Your task to perform on an android device: uninstall "Cash App" Image 0: 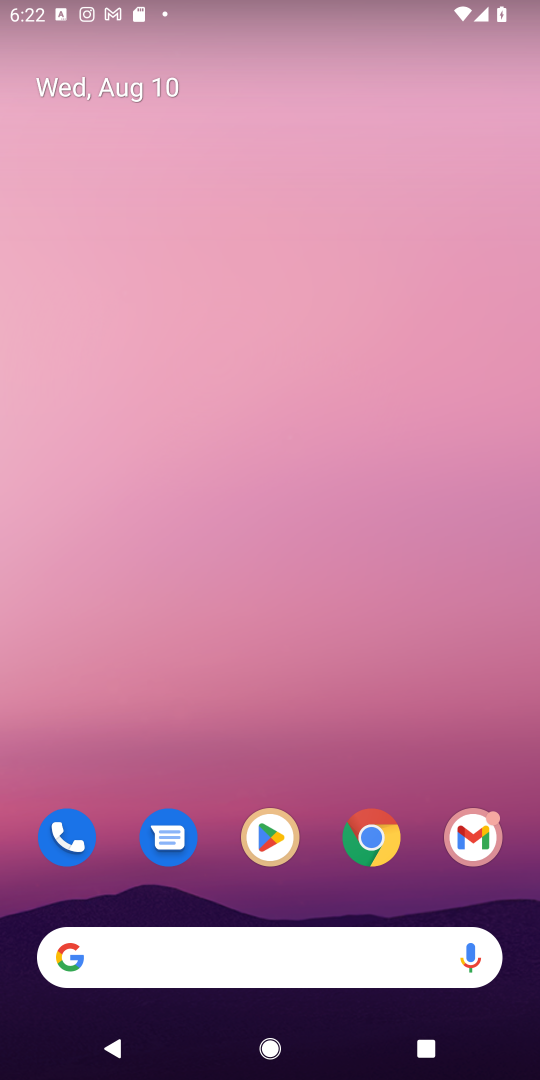
Step 0: press home button
Your task to perform on an android device: uninstall "Cash App" Image 1: 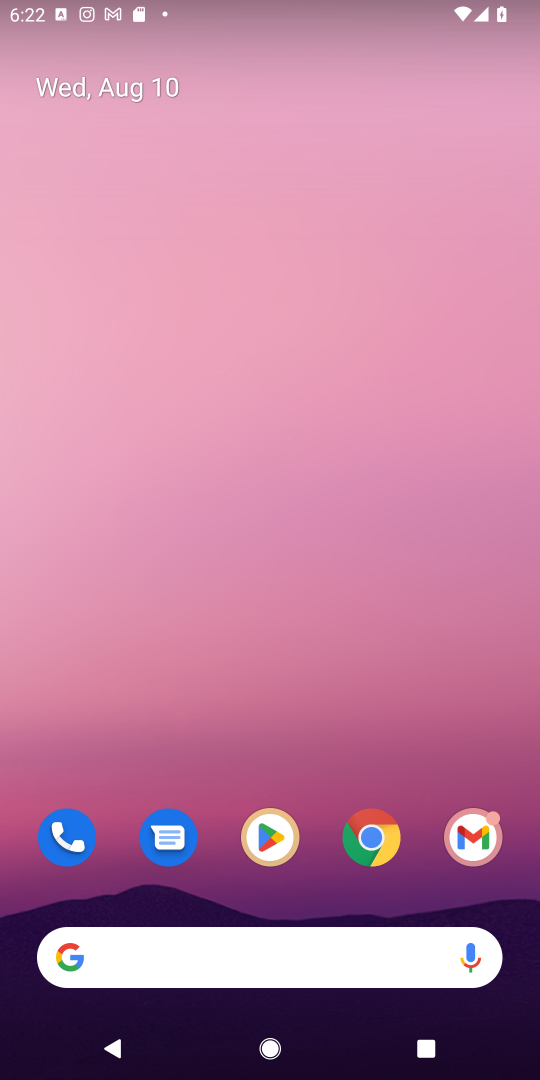
Step 1: click (267, 841)
Your task to perform on an android device: uninstall "Cash App" Image 2: 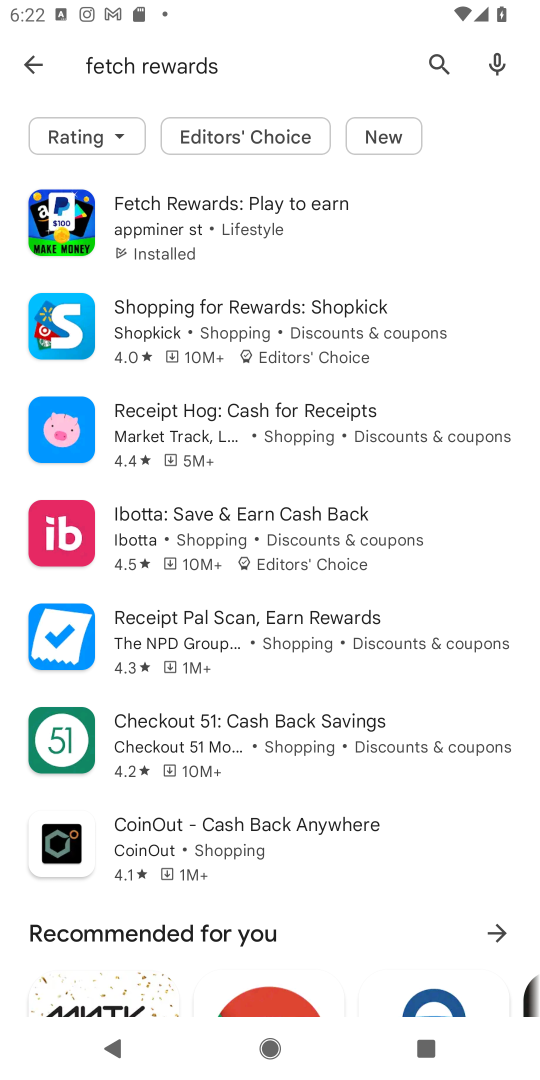
Step 2: click (438, 68)
Your task to perform on an android device: uninstall "Cash App" Image 3: 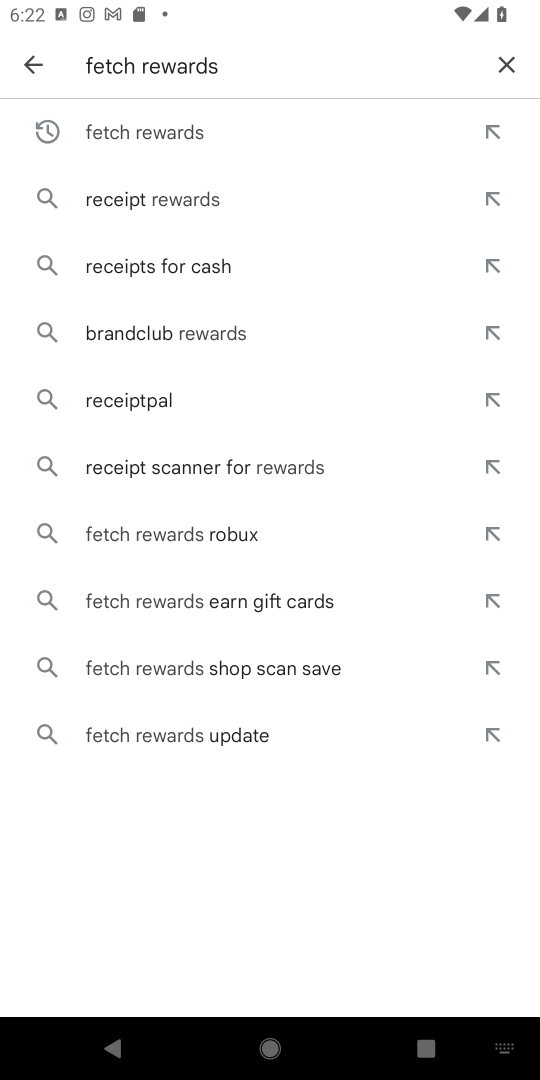
Step 3: click (510, 57)
Your task to perform on an android device: uninstall "Cash App" Image 4: 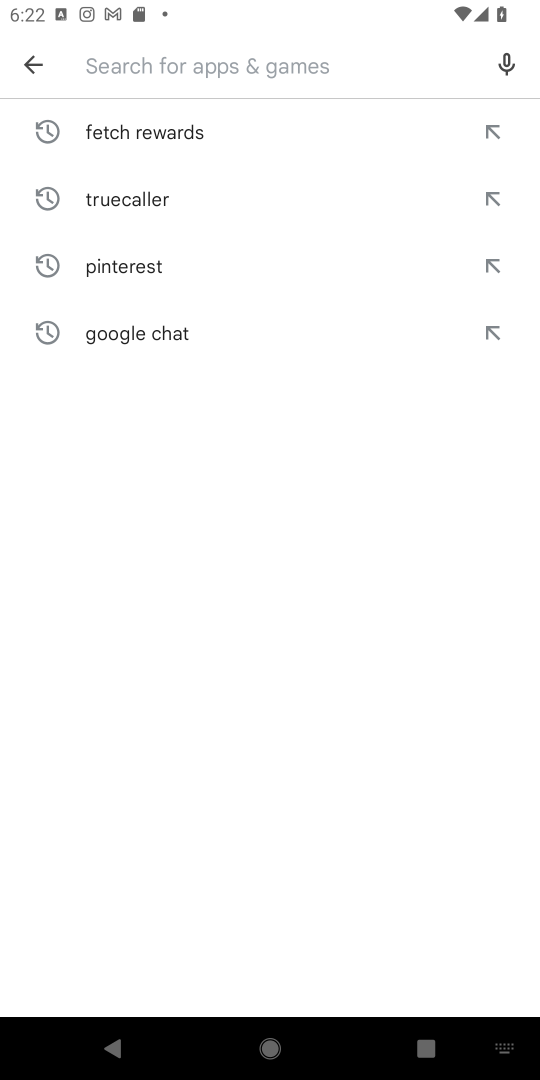
Step 4: type "Cash App"
Your task to perform on an android device: uninstall "Cash App" Image 5: 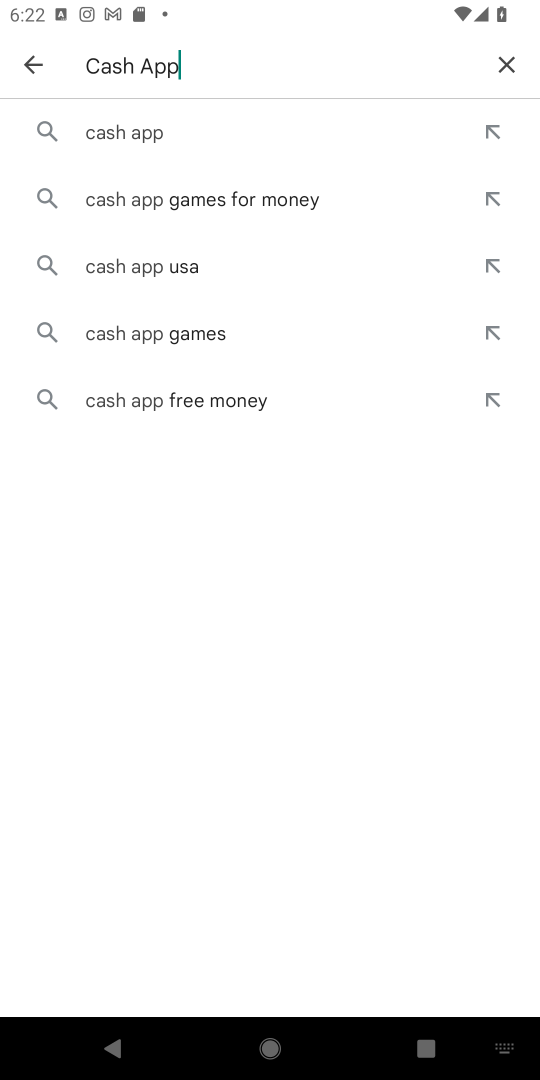
Step 5: click (146, 137)
Your task to perform on an android device: uninstall "Cash App" Image 6: 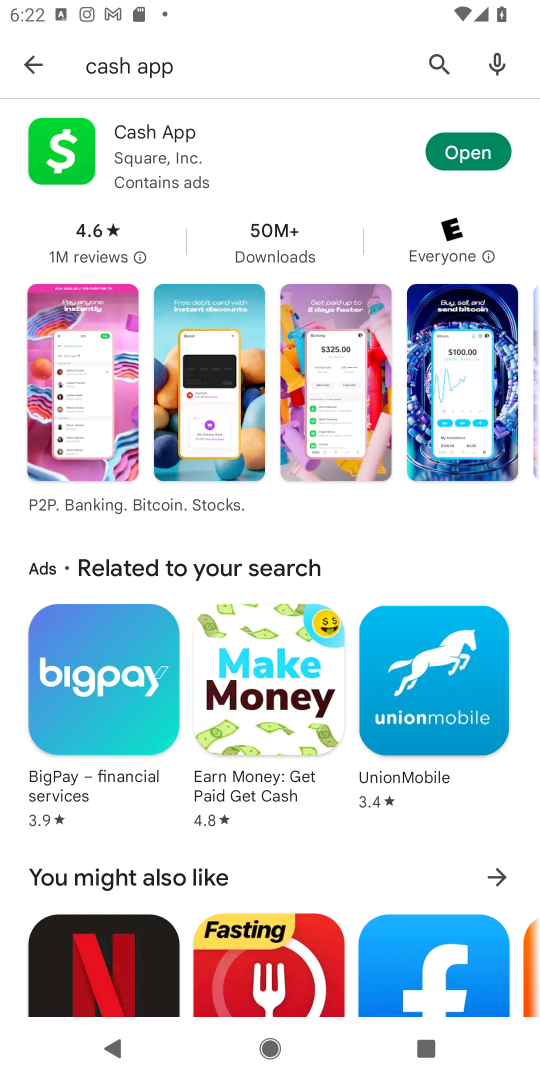
Step 6: click (152, 148)
Your task to perform on an android device: uninstall "Cash App" Image 7: 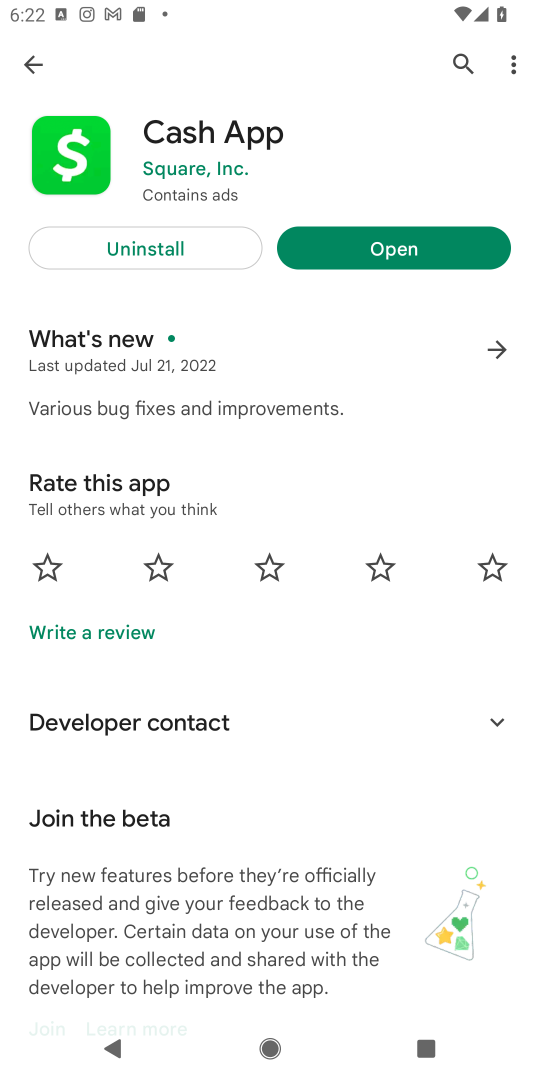
Step 7: click (192, 248)
Your task to perform on an android device: uninstall "Cash App" Image 8: 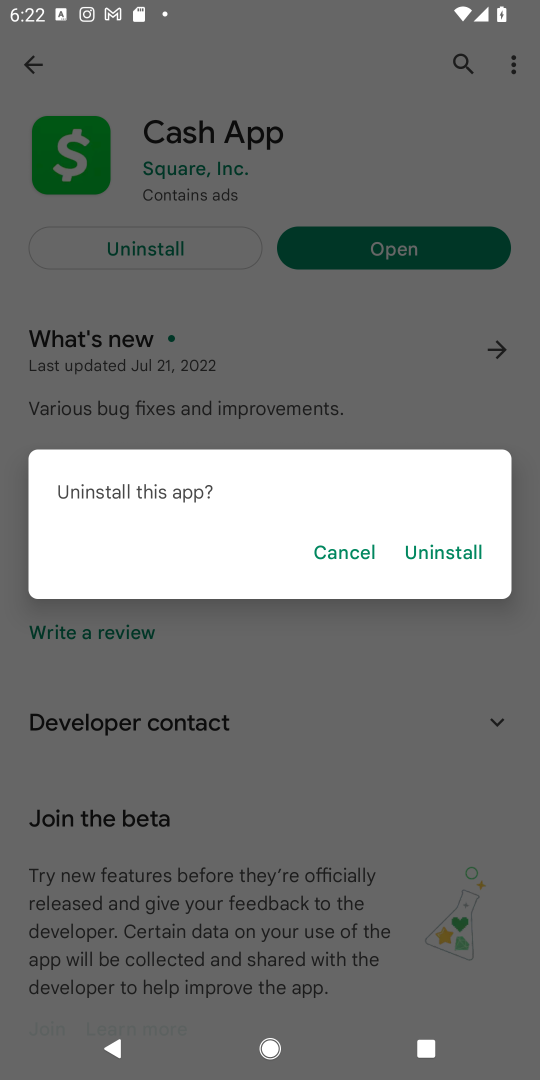
Step 8: click (439, 550)
Your task to perform on an android device: uninstall "Cash App" Image 9: 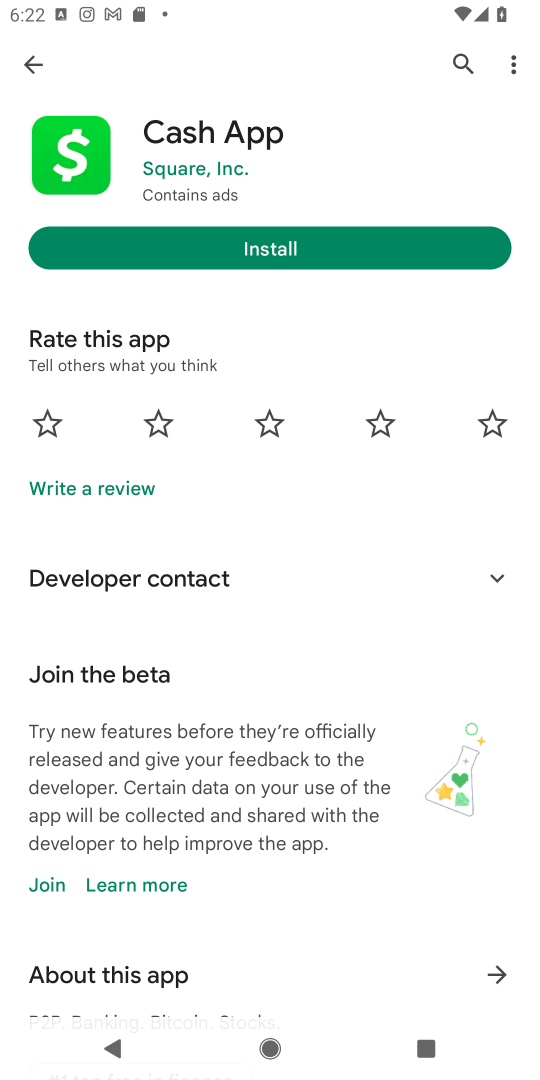
Step 9: task complete